Your task to perform on an android device: Do I have any events today? Image 0: 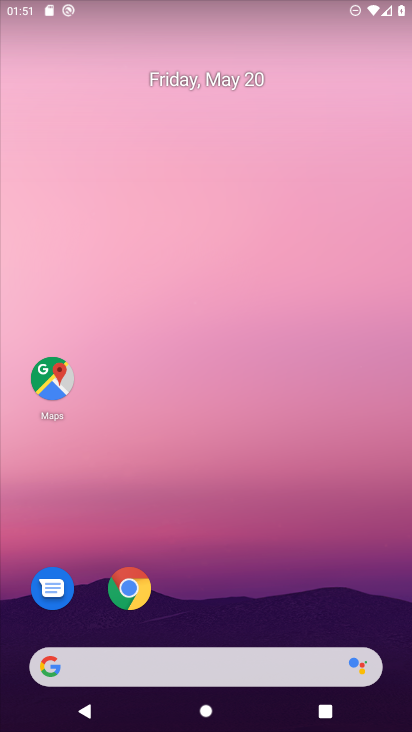
Step 0: drag from (378, 614) to (312, 77)
Your task to perform on an android device: Do I have any events today? Image 1: 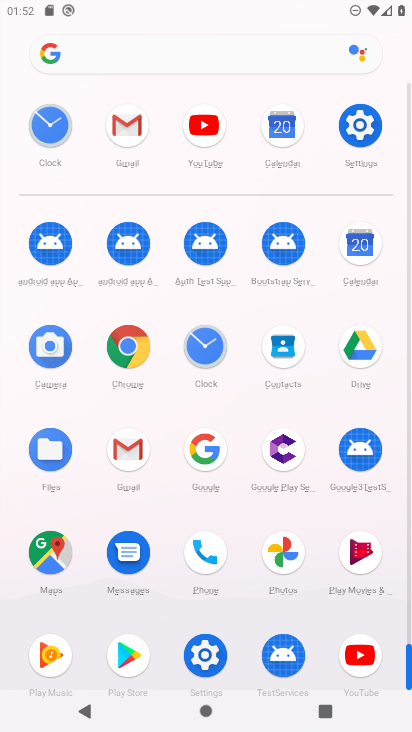
Step 1: click (361, 244)
Your task to perform on an android device: Do I have any events today? Image 2: 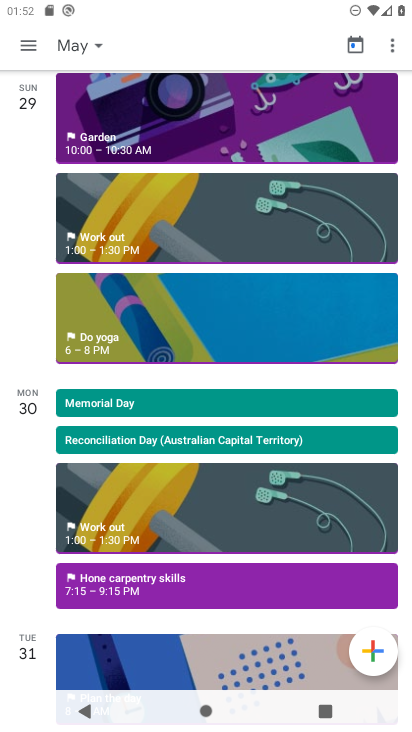
Step 2: click (29, 47)
Your task to perform on an android device: Do I have any events today? Image 3: 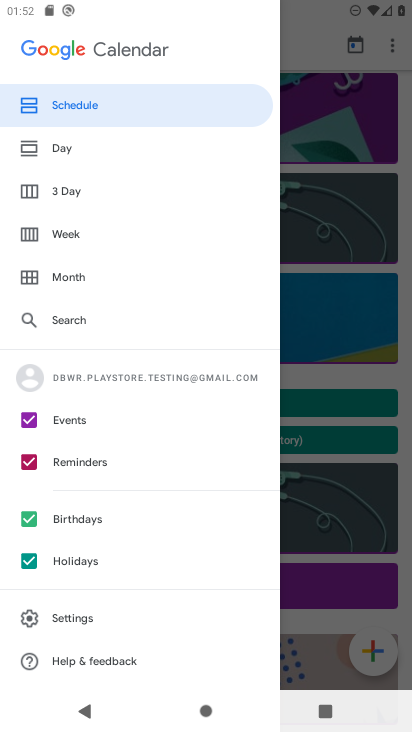
Step 3: click (56, 144)
Your task to perform on an android device: Do I have any events today? Image 4: 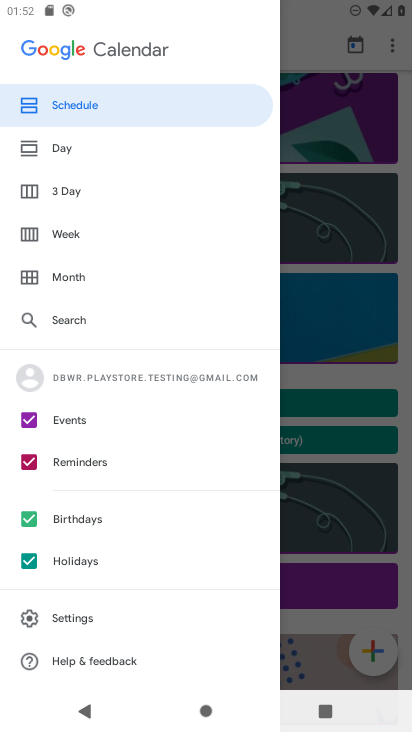
Step 4: click (58, 146)
Your task to perform on an android device: Do I have any events today? Image 5: 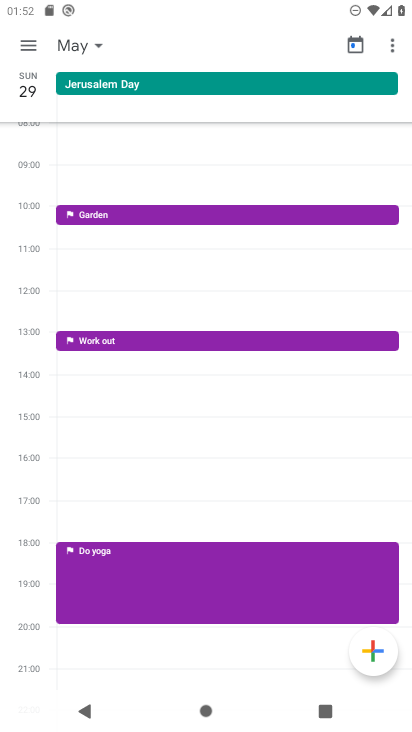
Step 5: click (94, 45)
Your task to perform on an android device: Do I have any events today? Image 6: 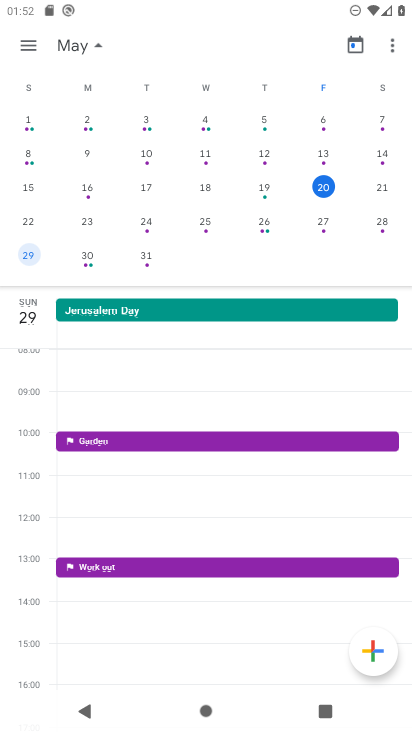
Step 6: click (318, 183)
Your task to perform on an android device: Do I have any events today? Image 7: 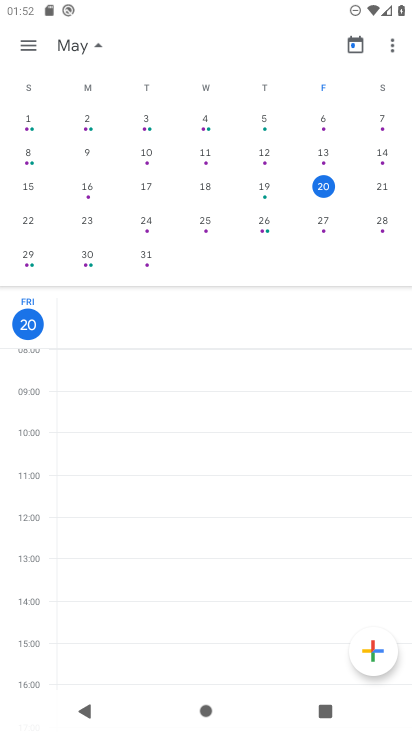
Step 7: task complete